Your task to perform on an android device: check the backup settings in the google photos Image 0: 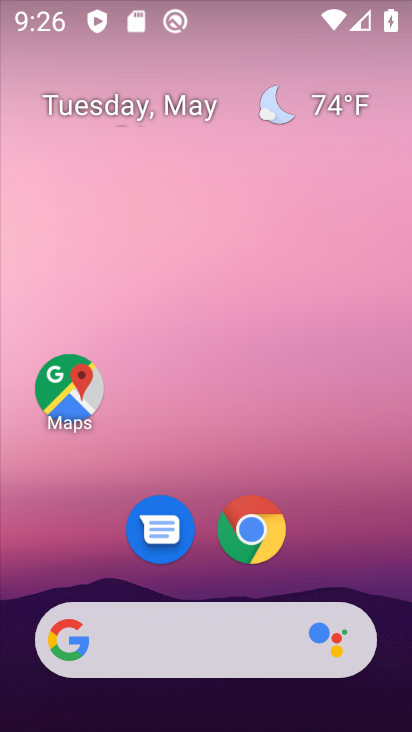
Step 0: drag from (203, 558) to (234, 113)
Your task to perform on an android device: check the backup settings in the google photos Image 1: 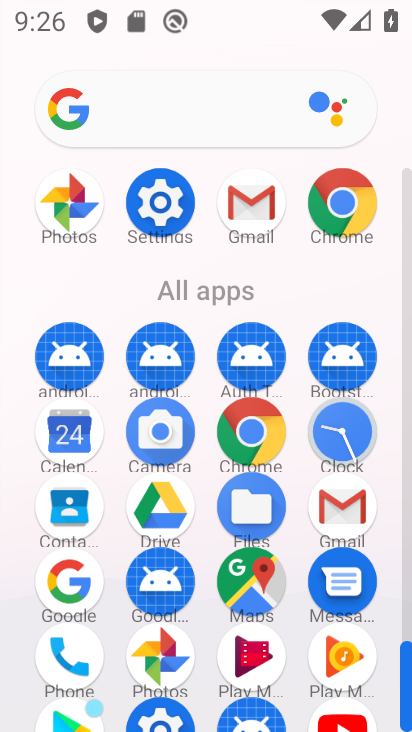
Step 1: drag from (207, 622) to (265, 287)
Your task to perform on an android device: check the backup settings in the google photos Image 2: 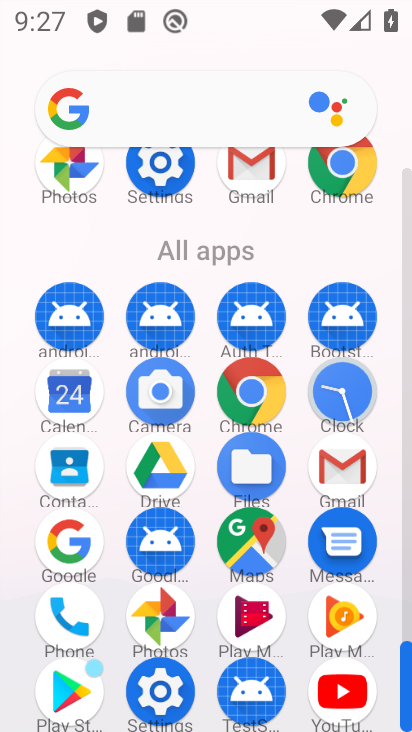
Step 2: click (159, 612)
Your task to perform on an android device: check the backup settings in the google photos Image 3: 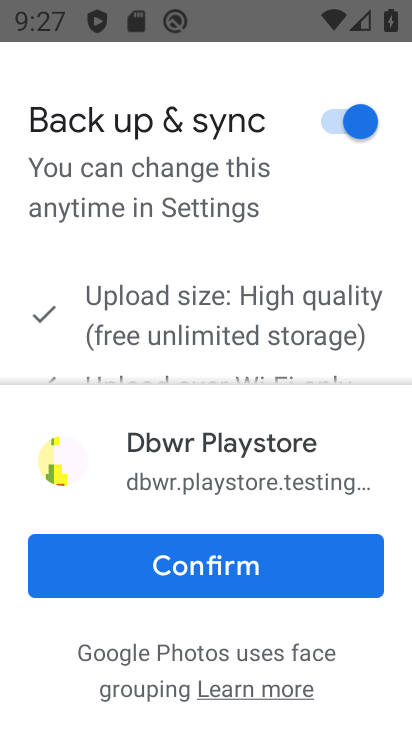
Step 3: click (240, 564)
Your task to perform on an android device: check the backup settings in the google photos Image 4: 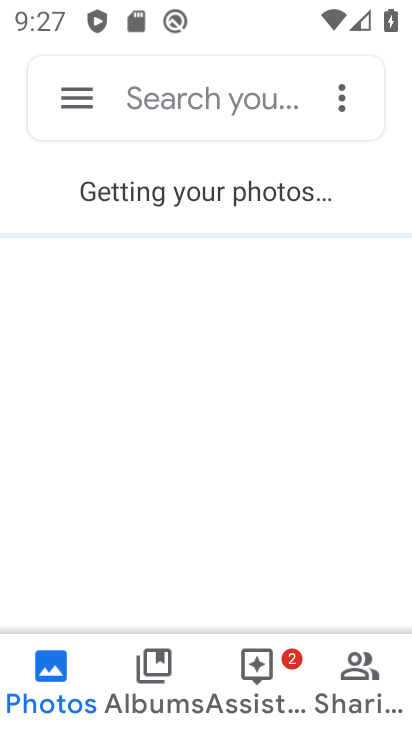
Step 4: click (71, 109)
Your task to perform on an android device: check the backup settings in the google photos Image 5: 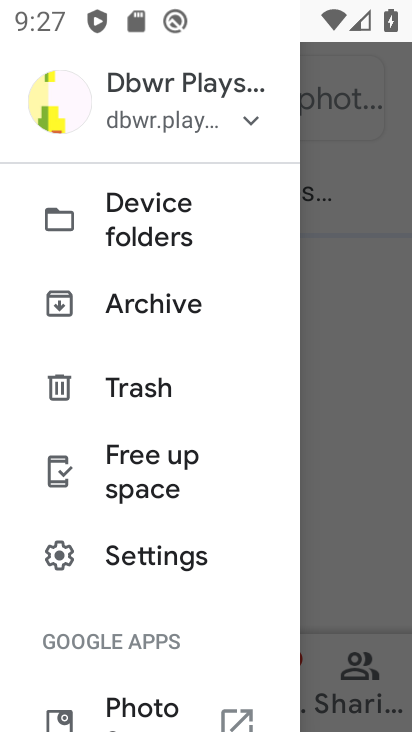
Step 5: click (185, 559)
Your task to perform on an android device: check the backup settings in the google photos Image 6: 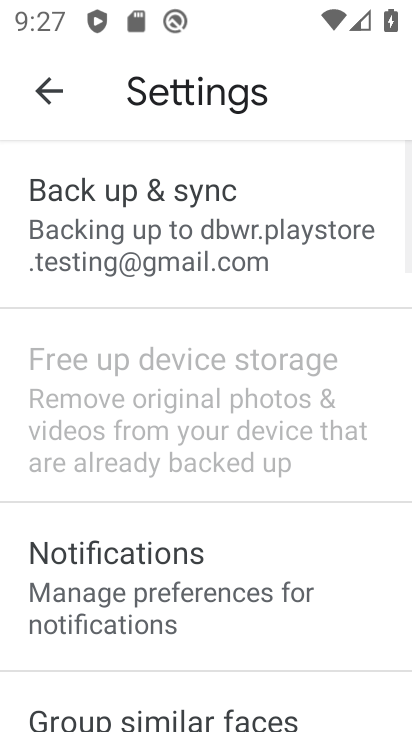
Step 6: click (214, 263)
Your task to perform on an android device: check the backup settings in the google photos Image 7: 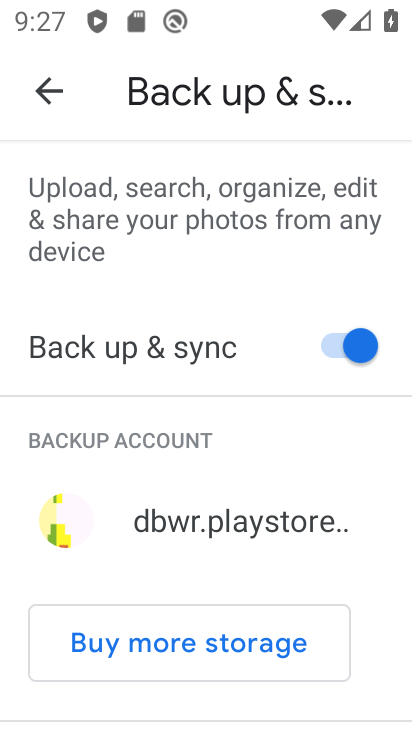
Step 7: task complete